Your task to perform on an android device: Go to accessibility settings Image 0: 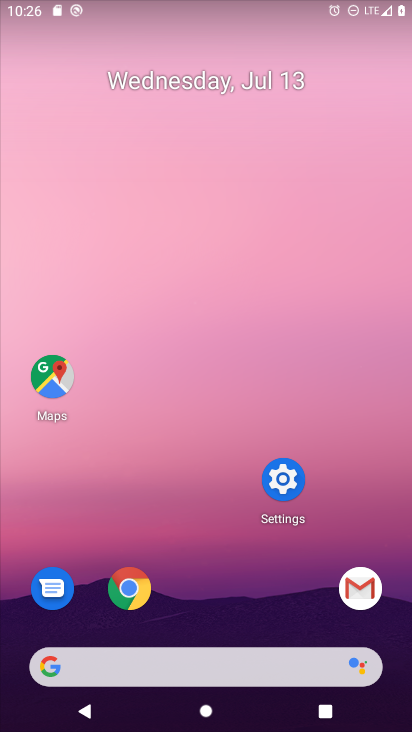
Step 0: click (287, 499)
Your task to perform on an android device: Go to accessibility settings Image 1: 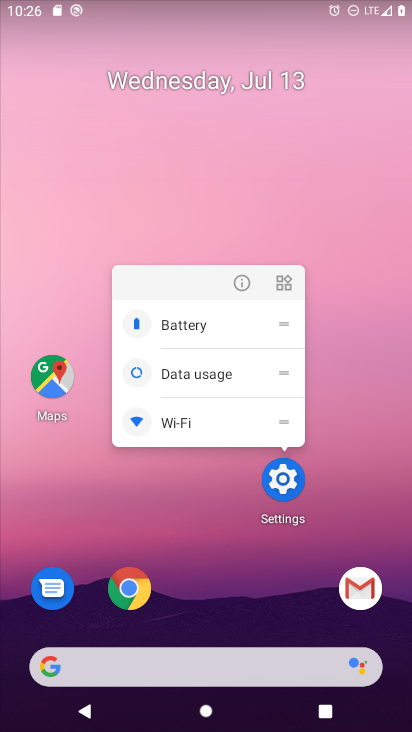
Step 1: click (280, 473)
Your task to perform on an android device: Go to accessibility settings Image 2: 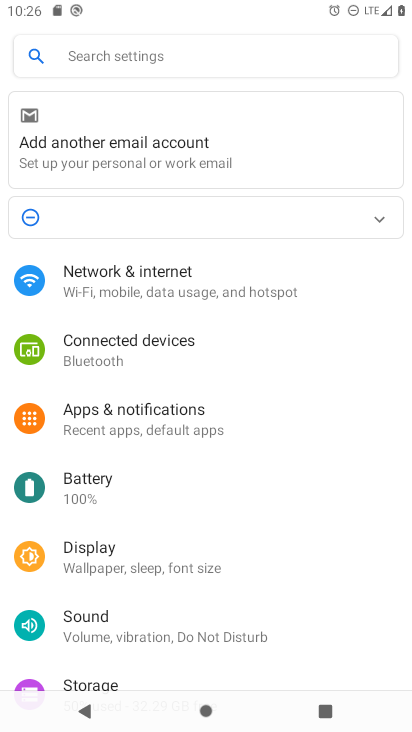
Step 2: click (97, 58)
Your task to perform on an android device: Go to accessibility settings Image 3: 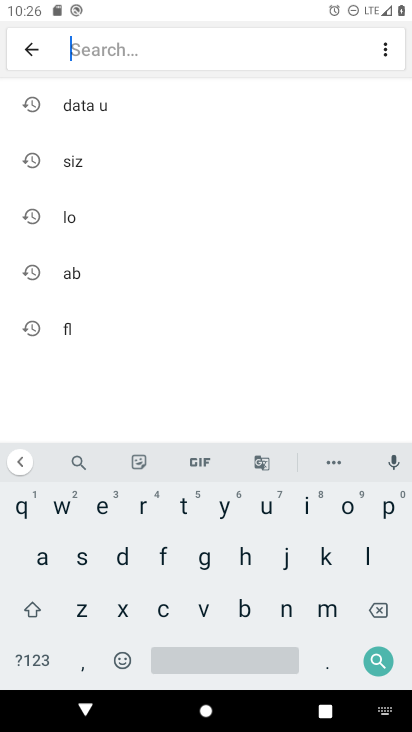
Step 3: click (34, 574)
Your task to perform on an android device: Go to accessibility settings Image 4: 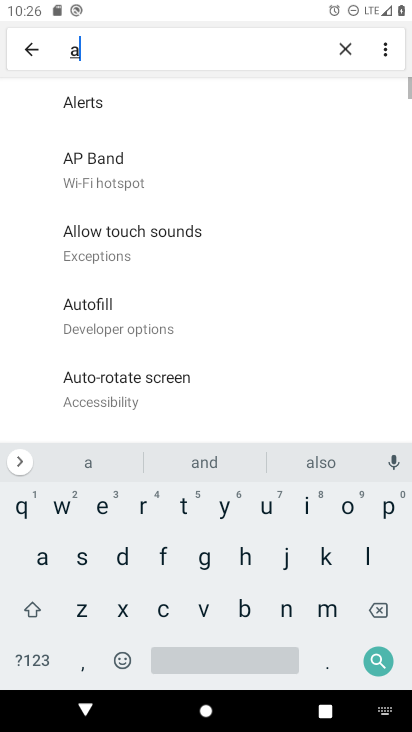
Step 4: click (159, 606)
Your task to perform on an android device: Go to accessibility settings Image 5: 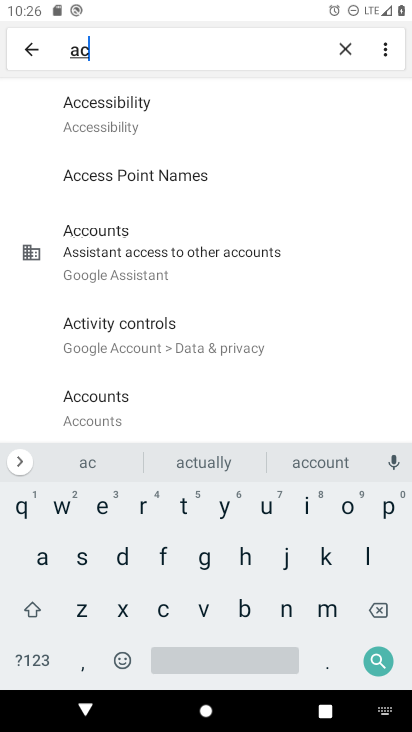
Step 5: click (94, 112)
Your task to perform on an android device: Go to accessibility settings Image 6: 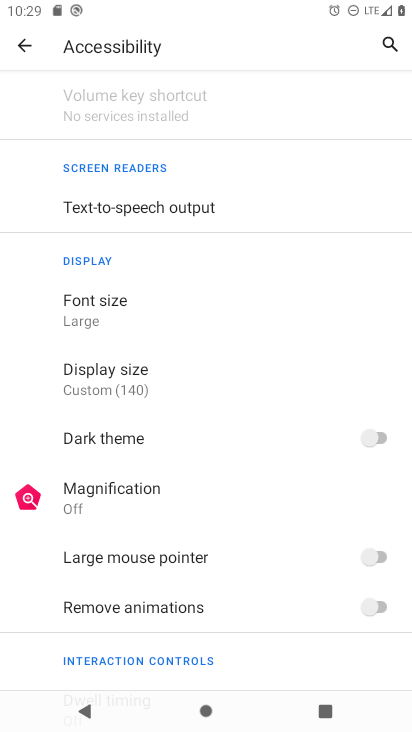
Step 6: task complete